Your task to perform on an android device: toggle priority inbox in the gmail app Image 0: 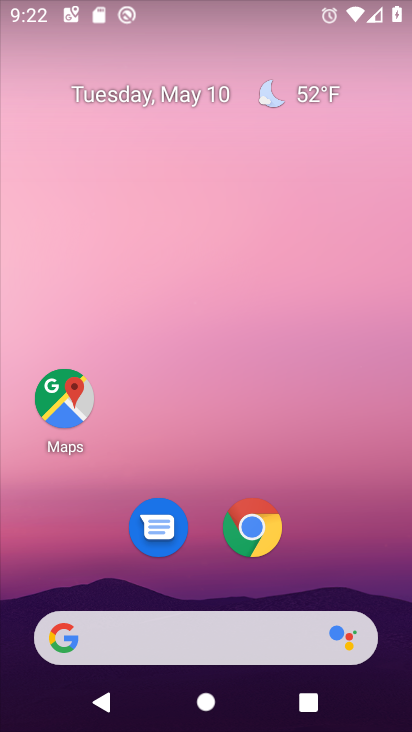
Step 0: drag from (296, 544) to (145, 201)
Your task to perform on an android device: toggle priority inbox in the gmail app Image 1: 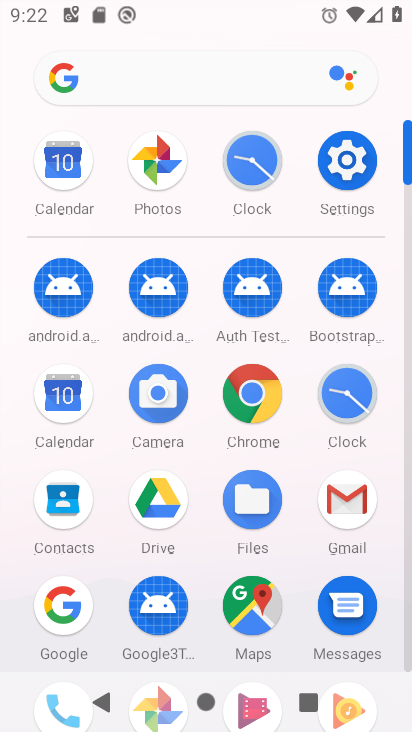
Step 1: click (356, 507)
Your task to perform on an android device: toggle priority inbox in the gmail app Image 2: 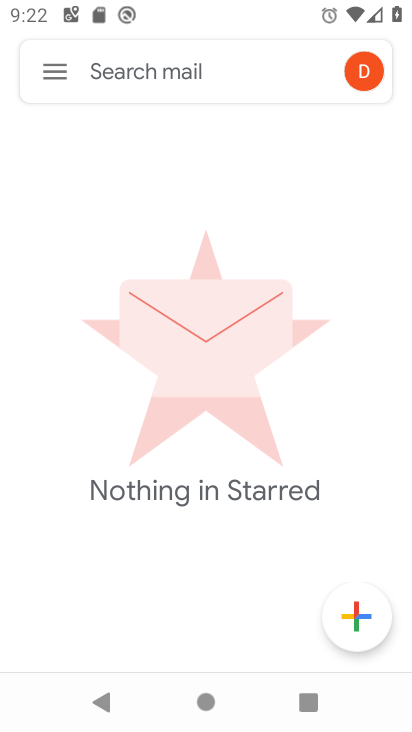
Step 2: click (56, 77)
Your task to perform on an android device: toggle priority inbox in the gmail app Image 3: 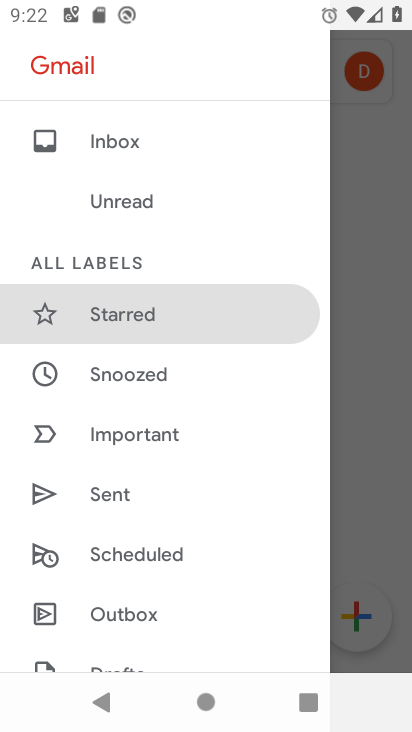
Step 3: drag from (138, 610) to (138, 150)
Your task to perform on an android device: toggle priority inbox in the gmail app Image 4: 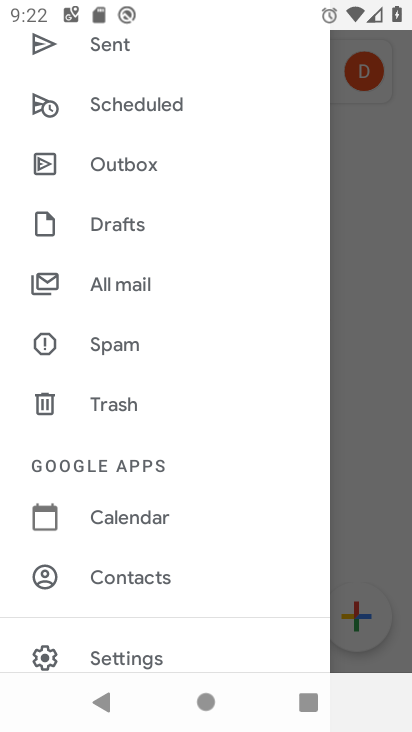
Step 4: click (135, 650)
Your task to perform on an android device: toggle priority inbox in the gmail app Image 5: 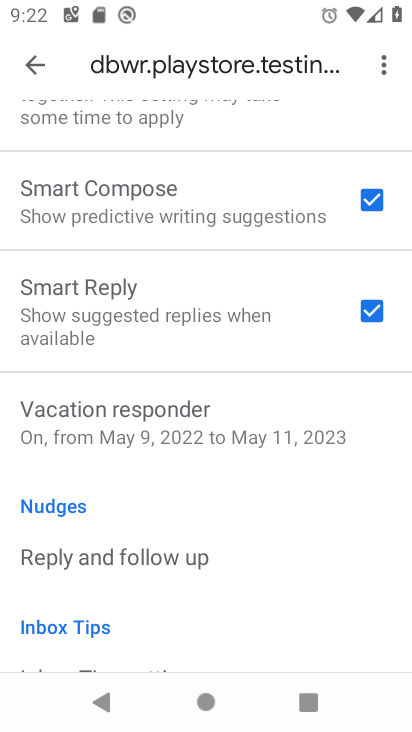
Step 5: drag from (176, 178) to (184, 694)
Your task to perform on an android device: toggle priority inbox in the gmail app Image 6: 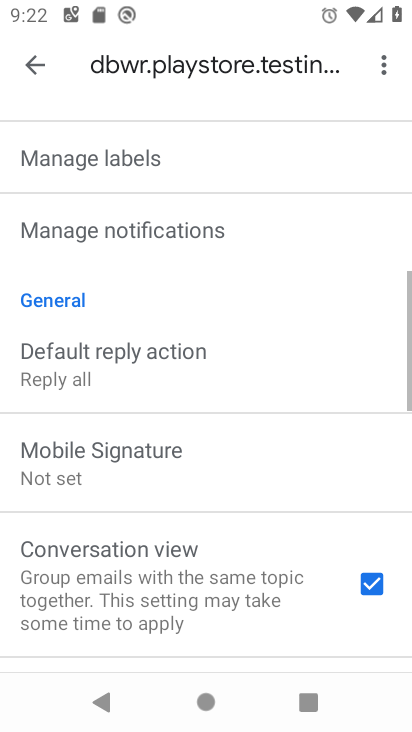
Step 6: drag from (195, 346) to (160, 635)
Your task to perform on an android device: toggle priority inbox in the gmail app Image 7: 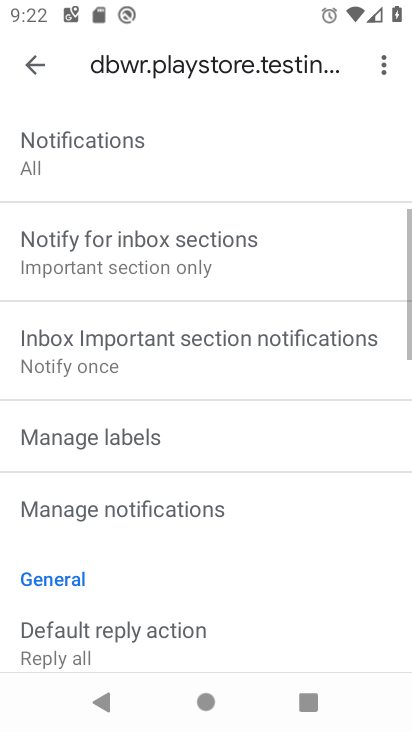
Step 7: drag from (187, 273) to (162, 598)
Your task to perform on an android device: toggle priority inbox in the gmail app Image 8: 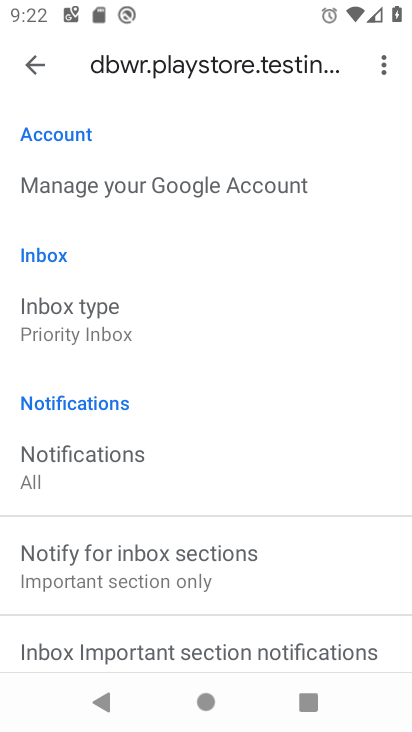
Step 8: click (97, 330)
Your task to perform on an android device: toggle priority inbox in the gmail app Image 9: 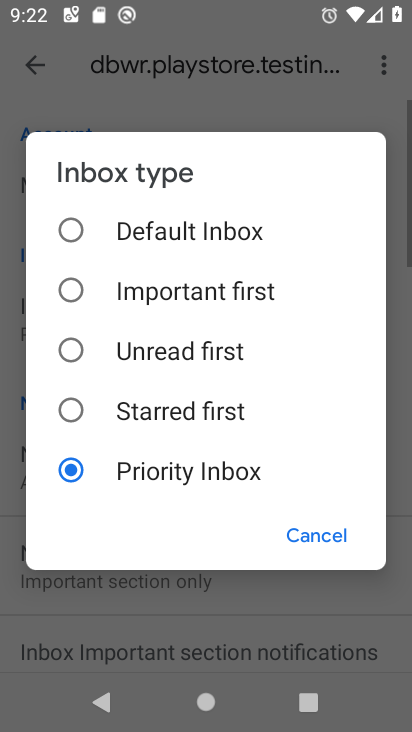
Step 9: click (97, 330)
Your task to perform on an android device: toggle priority inbox in the gmail app Image 10: 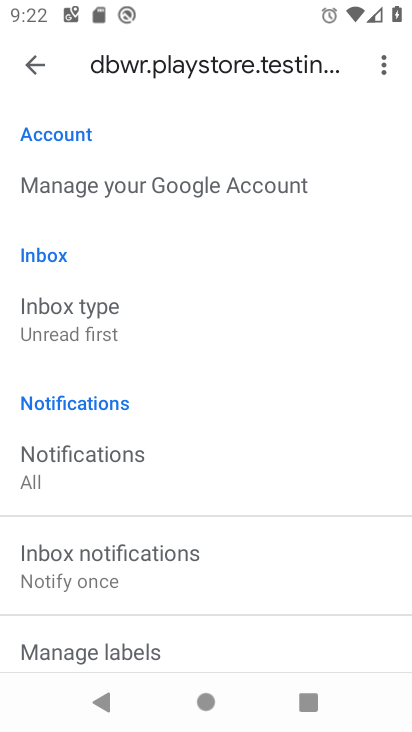
Step 10: task complete